Your task to perform on an android device: Open Google Chrome and open the bookmarks view Image 0: 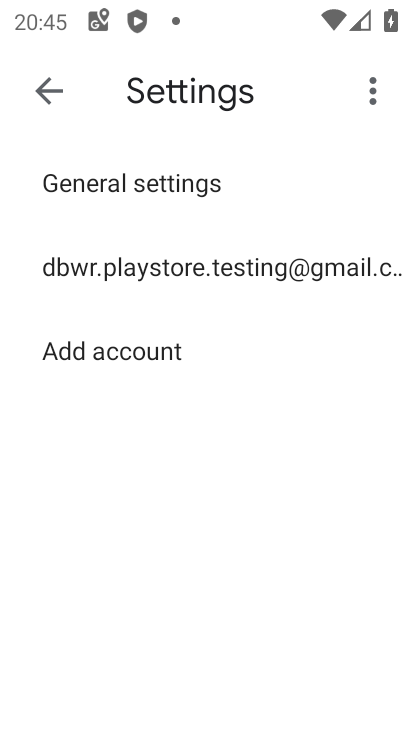
Step 0: press home button
Your task to perform on an android device: Open Google Chrome and open the bookmarks view Image 1: 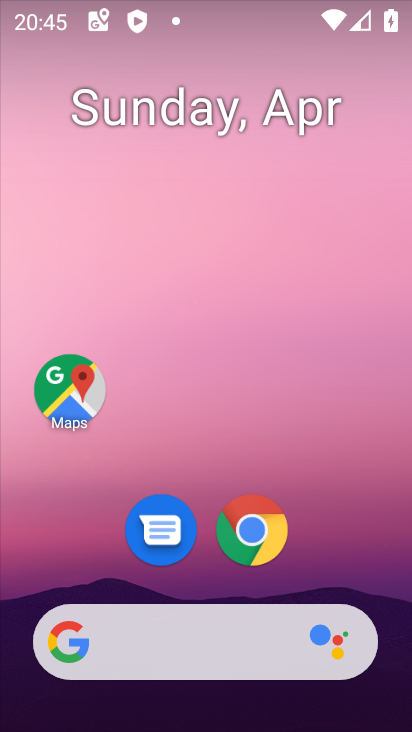
Step 1: click (242, 544)
Your task to perform on an android device: Open Google Chrome and open the bookmarks view Image 2: 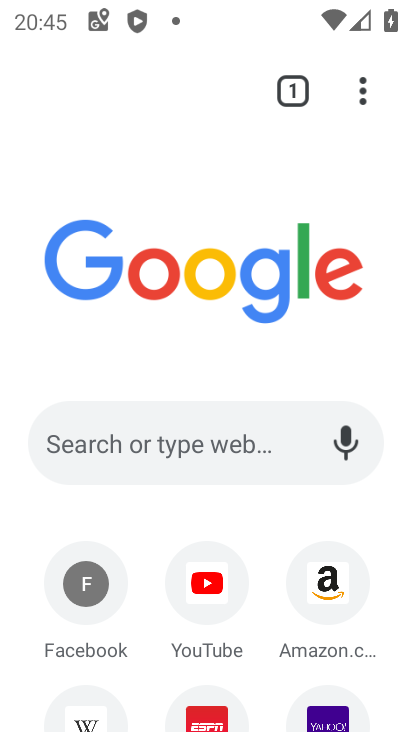
Step 2: click (357, 94)
Your task to perform on an android device: Open Google Chrome and open the bookmarks view Image 3: 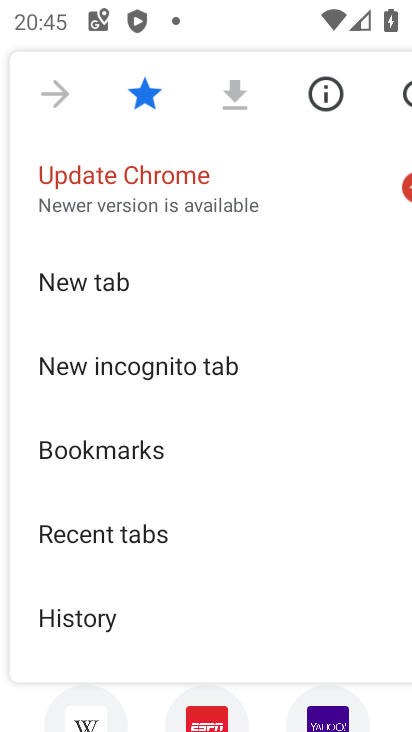
Step 3: click (151, 449)
Your task to perform on an android device: Open Google Chrome and open the bookmarks view Image 4: 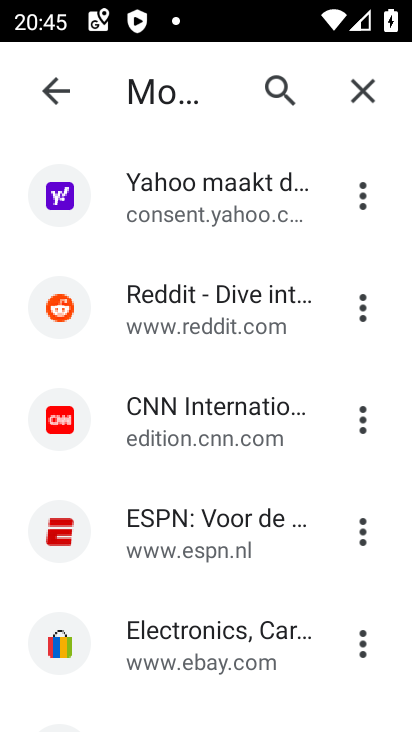
Step 4: task complete